Your task to perform on an android device: Open battery settings Image 0: 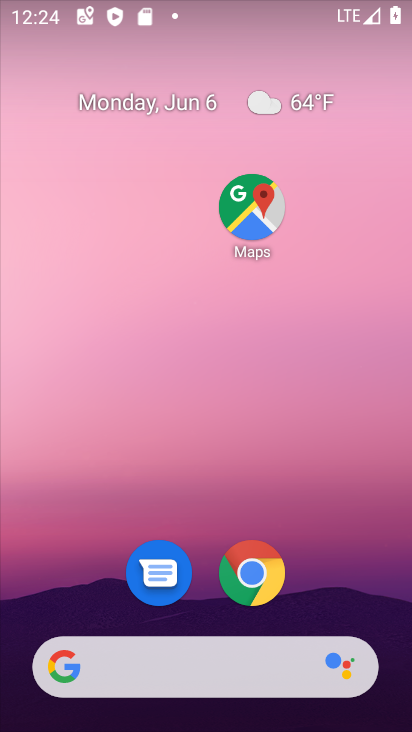
Step 0: drag from (204, 448) to (153, 66)
Your task to perform on an android device: Open battery settings Image 1: 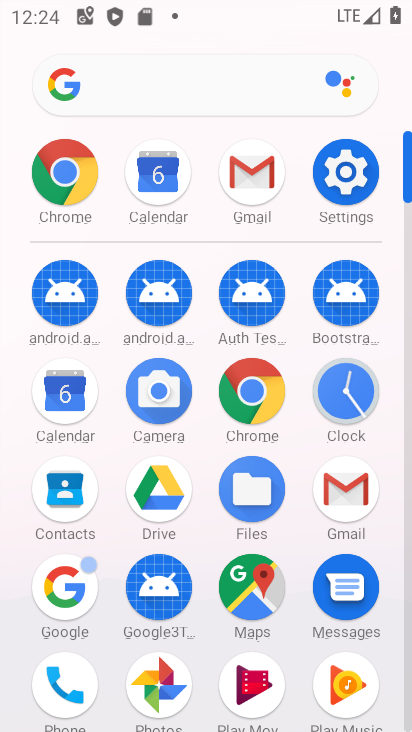
Step 1: drag from (198, 249) to (240, 10)
Your task to perform on an android device: Open battery settings Image 2: 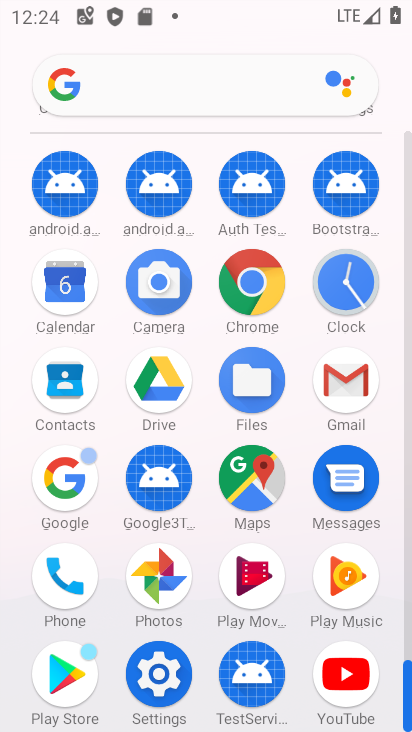
Step 2: click (155, 687)
Your task to perform on an android device: Open battery settings Image 3: 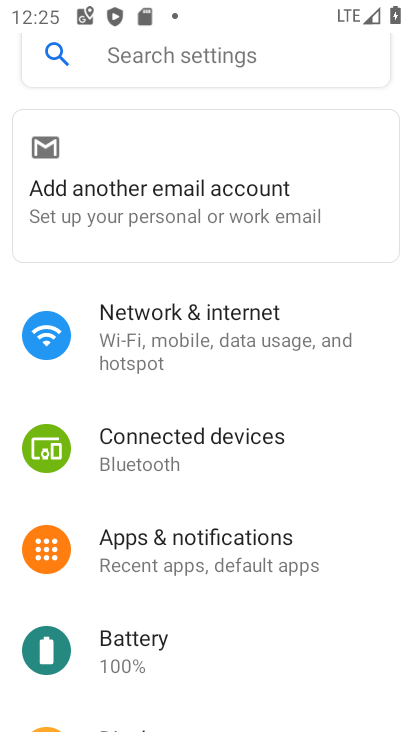
Step 3: click (181, 650)
Your task to perform on an android device: Open battery settings Image 4: 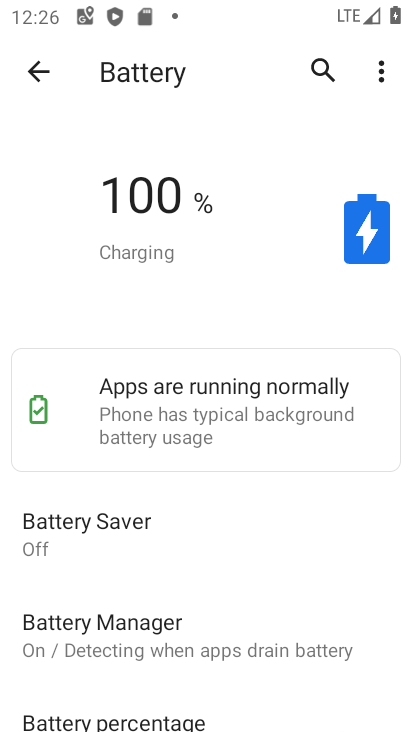
Step 4: task complete